Your task to perform on an android device: Go to notification settings Image 0: 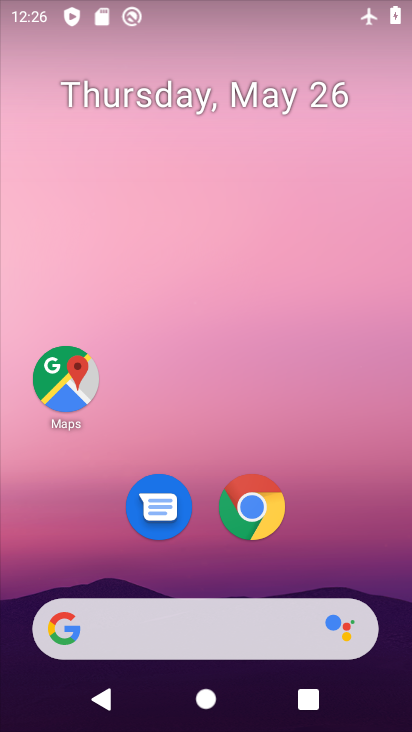
Step 0: drag from (212, 531) to (257, 170)
Your task to perform on an android device: Go to notification settings Image 1: 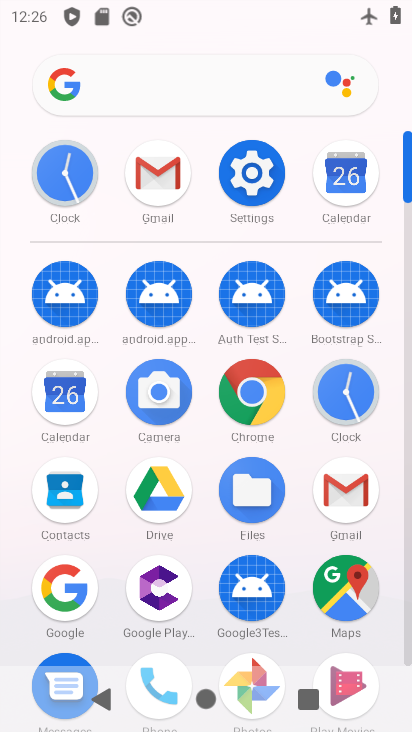
Step 1: click (258, 167)
Your task to perform on an android device: Go to notification settings Image 2: 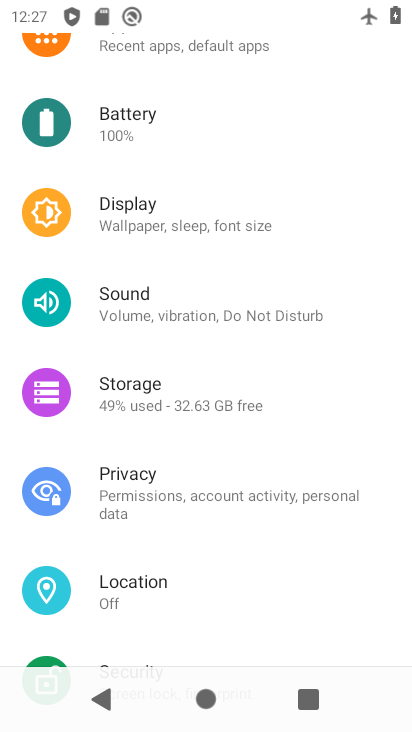
Step 2: drag from (258, 167) to (244, 466)
Your task to perform on an android device: Go to notification settings Image 3: 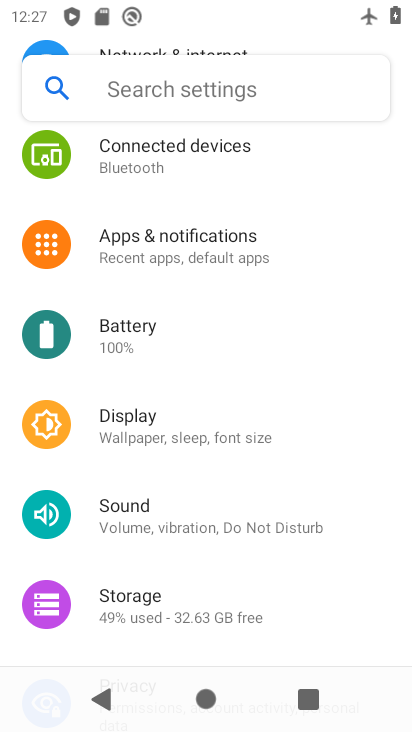
Step 3: click (229, 269)
Your task to perform on an android device: Go to notification settings Image 4: 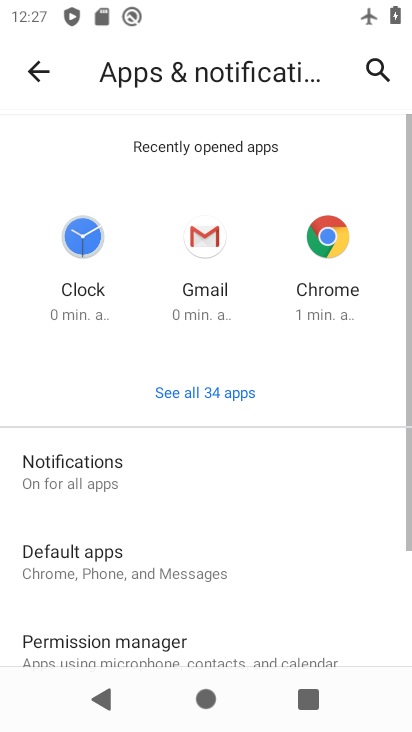
Step 4: click (191, 480)
Your task to perform on an android device: Go to notification settings Image 5: 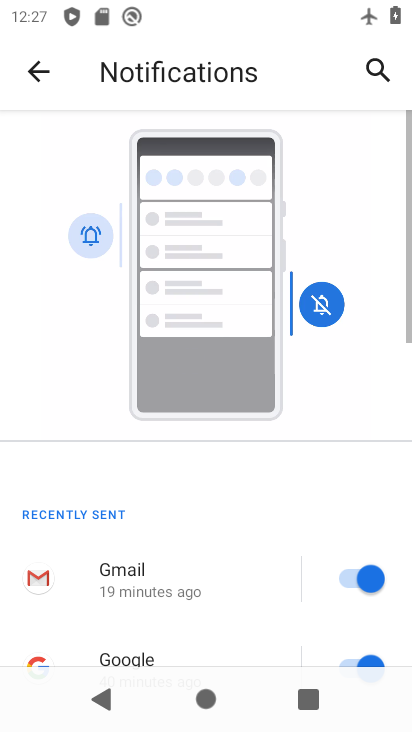
Step 5: task complete